Your task to perform on an android device: refresh tabs in the chrome app Image 0: 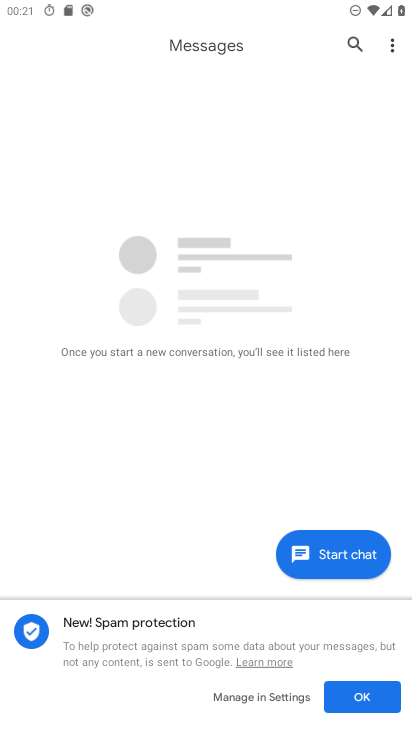
Step 0: press home button
Your task to perform on an android device: refresh tabs in the chrome app Image 1: 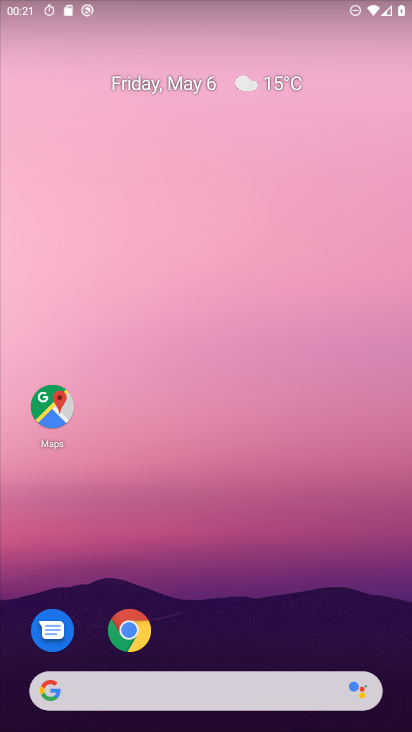
Step 1: click (131, 639)
Your task to perform on an android device: refresh tabs in the chrome app Image 2: 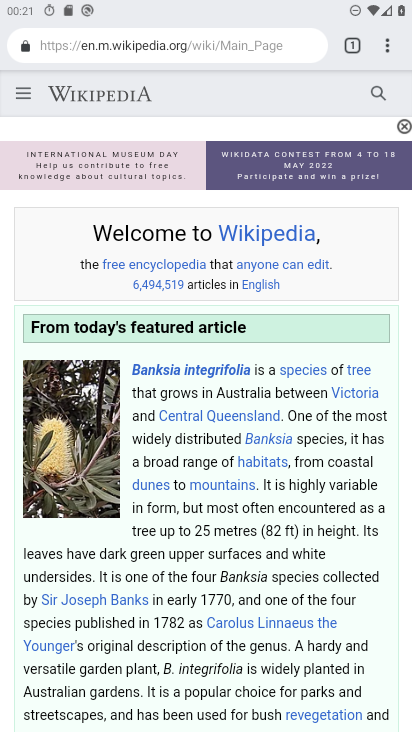
Step 2: click (386, 42)
Your task to perform on an android device: refresh tabs in the chrome app Image 3: 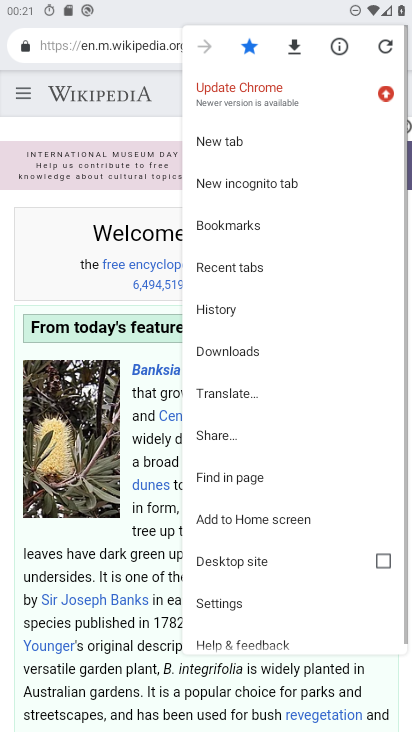
Step 3: click (386, 42)
Your task to perform on an android device: refresh tabs in the chrome app Image 4: 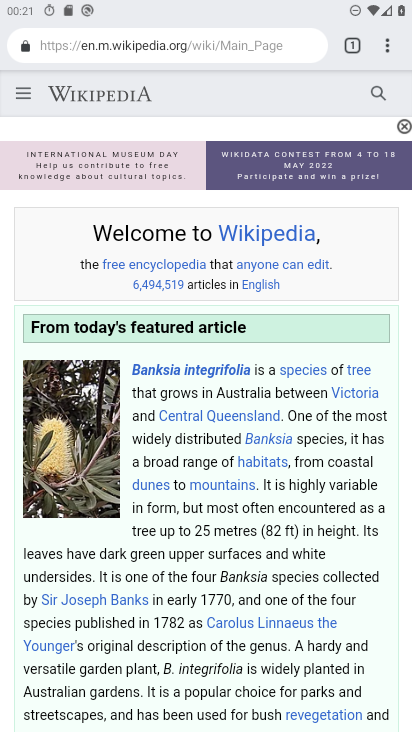
Step 4: task complete